Your task to perform on an android device: turn vacation reply on in the gmail app Image 0: 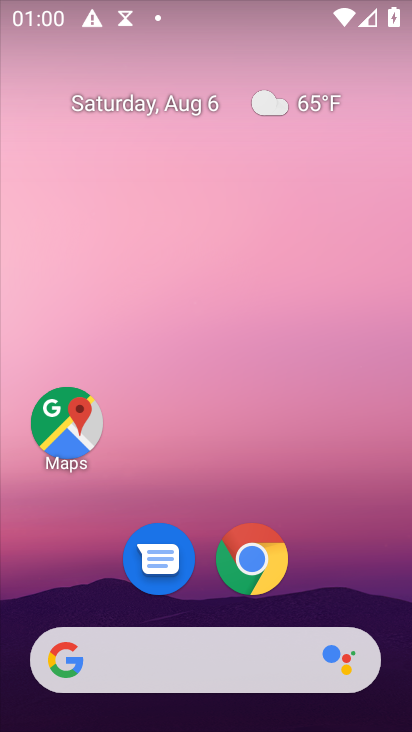
Step 0: drag from (387, 603) to (294, 0)
Your task to perform on an android device: turn vacation reply on in the gmail app Image 1: 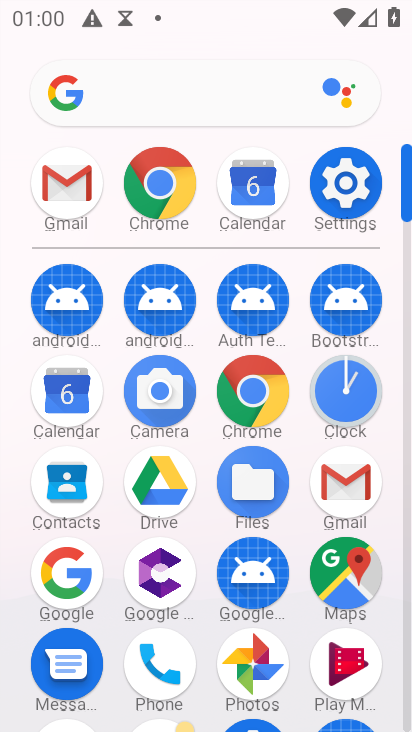
Step 1: click (63, 175)
Your task to perform on an android device: turn vacation reply on in the gmail app Image 2: 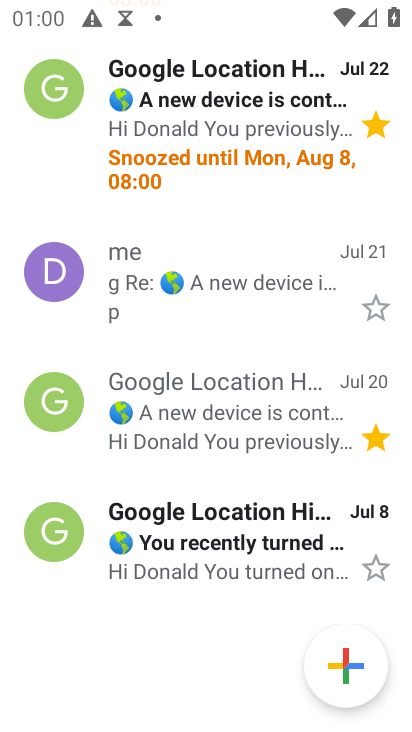
Step 2: drag from (168, 176) to (172, 459)
Your task to perform on an android device: turn vacation reply on in the gmail app Image 3: 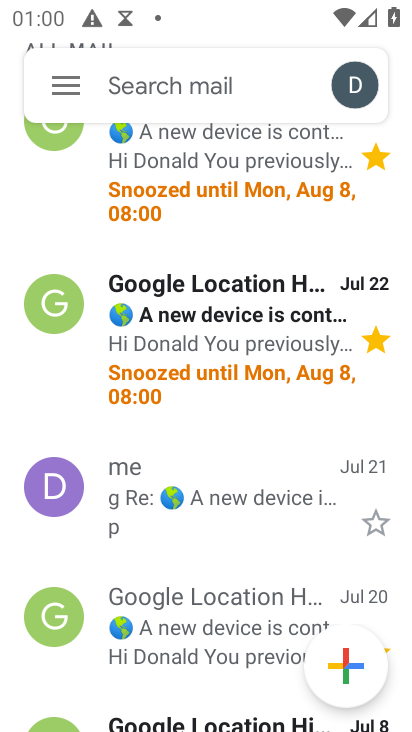
Step 3: click (68, 99)
Your task to perform on an android device: turn vacation reply on in the gmail app Image 4: 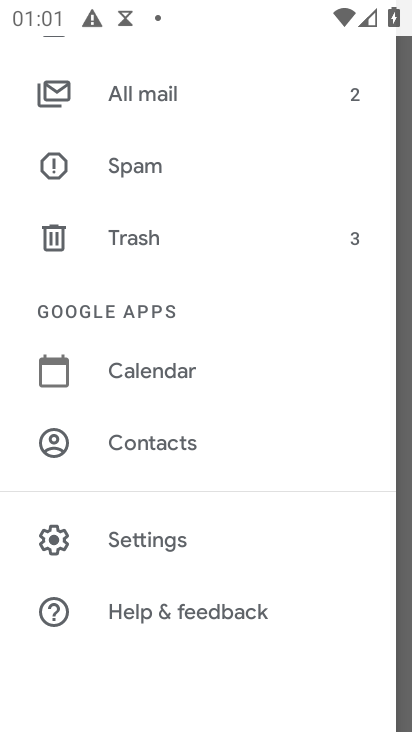
Step 4: click (159, 536)
Your task to perform on an android device: turn vacation reply on in the gmail app Image 5: 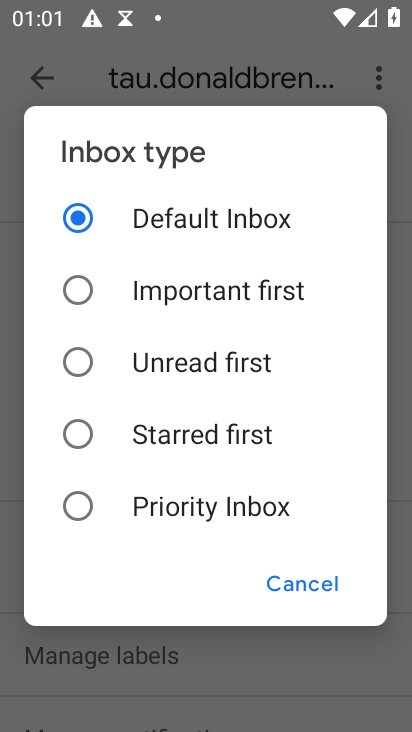
Step 5: click (289, 596)
Your task to perform on an android device: turn vacation reply on in the gmail app Image 6: 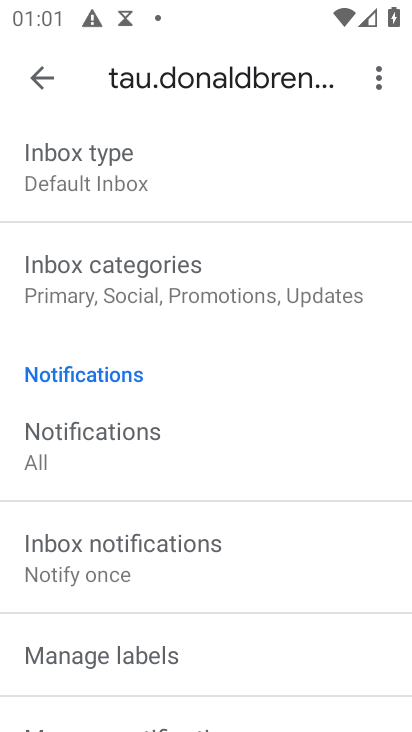
Step 6: drag from (220, 652) to (169, 114)
Your task to perform on an android device: turn vacation reply on in the gmail app Image 7: 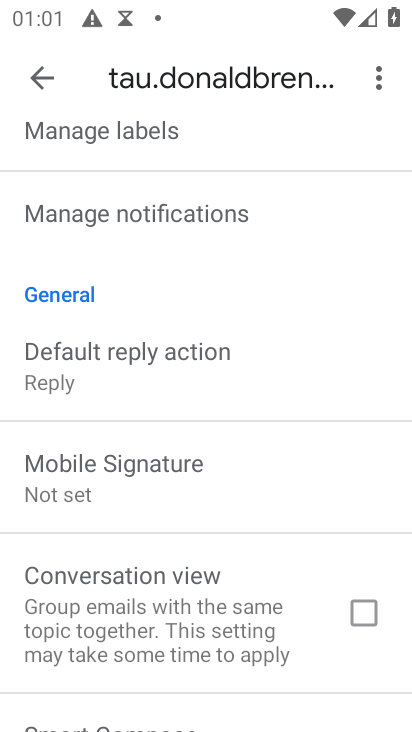
Step 7: drag from (220, 616) to (202, 147)
Your task to perform on an android device: turn vacation reply on in the gmail app Image 8: 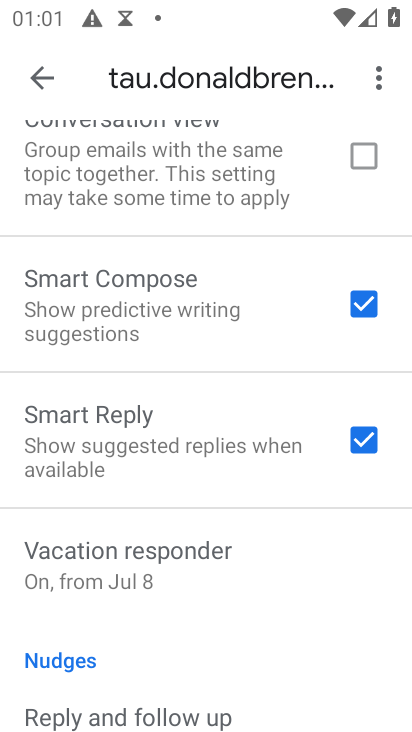
Step 8: click (200, 573)
Your task to perform on an android device: turn vacation reply on in the gmail app Image 9: 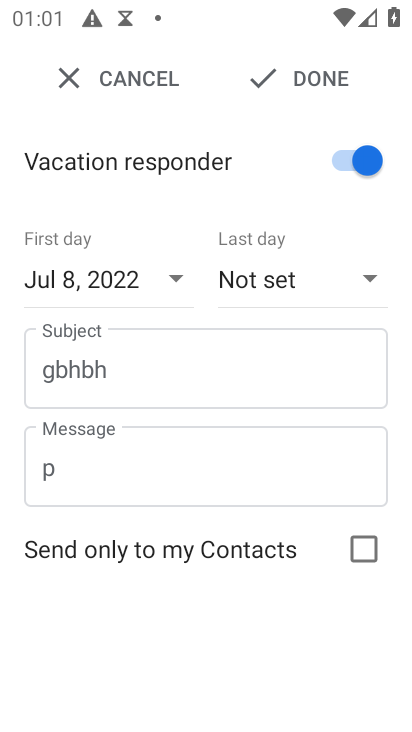
Step 9: click (234, 385)
Your task to perform on an android device: turn vacation reply on in the gmail app Image 10: 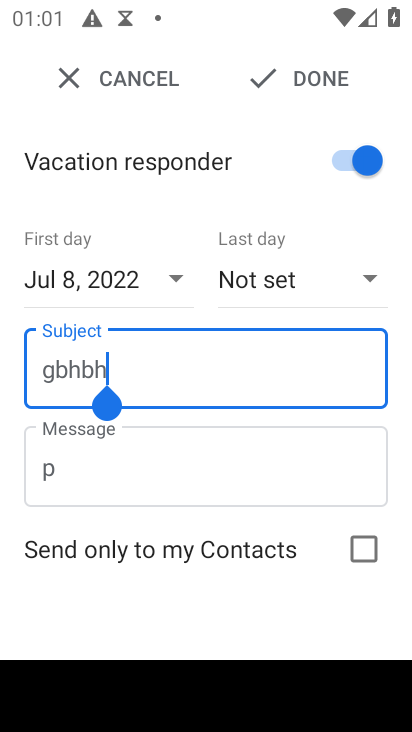
Step 10: type "jjkkk"
Your task to perform on an android device: turn vacation reply on in the gmail app Image 11: 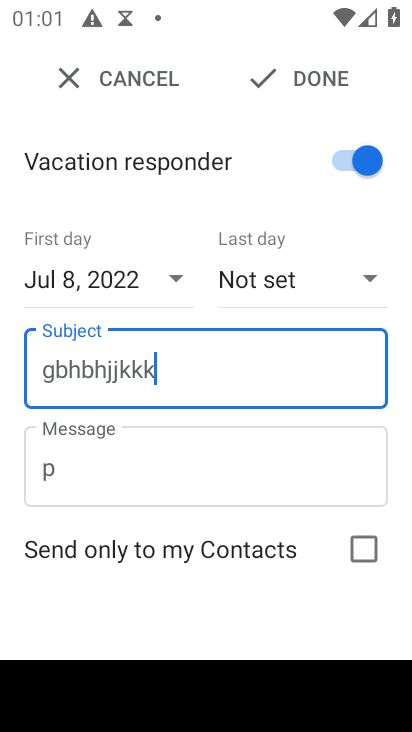
Step 11: click (311, 93)
Your task to perform on an android device: turn vacation reply on in the gmail app Image 12: 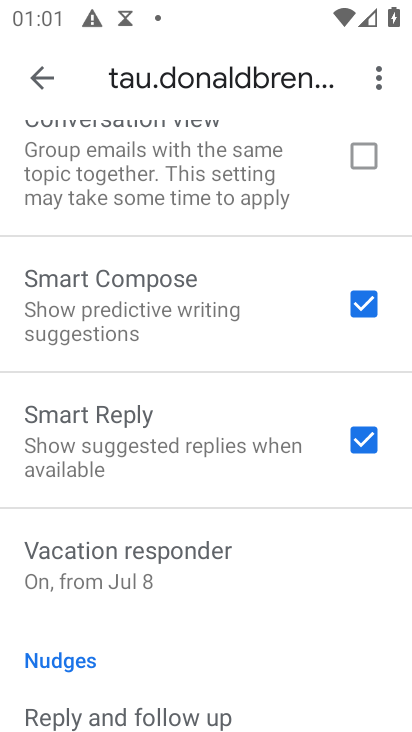
Step 12: task complete